Your task to perform on an android device: move an email to a new category in the gmail app Image 0: 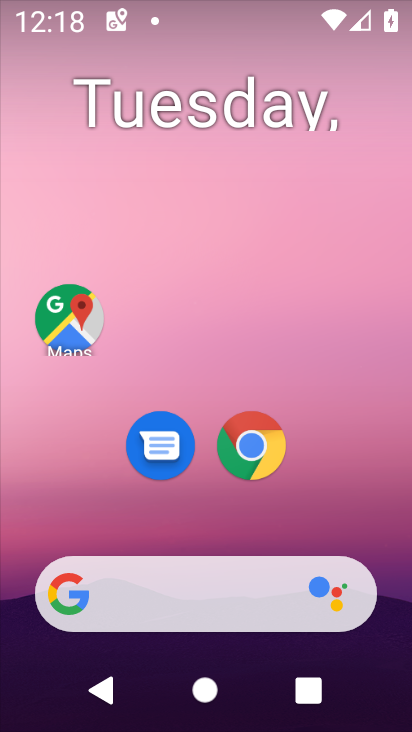
Step 0: drag from (390, 546) to (393, 203)
Your task to perform on an android device: move an email to a new category in the gmail app Image 1: 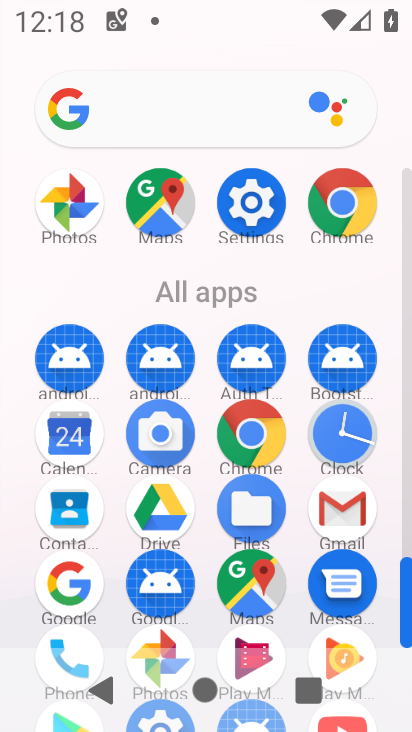
Step 1: drag from (392, 535) to (392, 315)
Your task to perform on an android device: move an email to a new category in the gmail app Image 2: 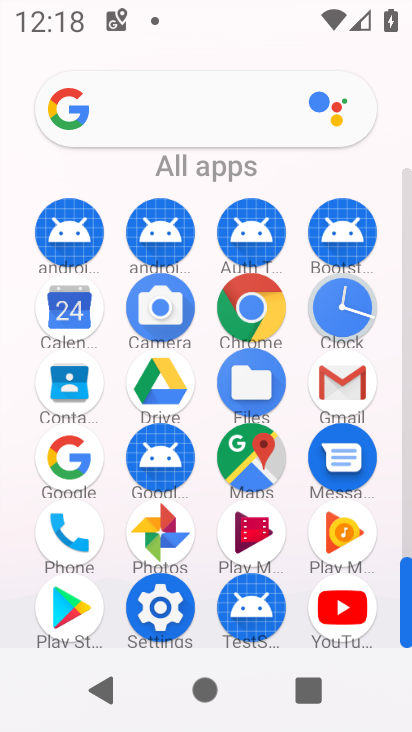
Step 2: click (348, 393)
Your task to perform on an android device: move an email to a new category in the gmail app Image 3: 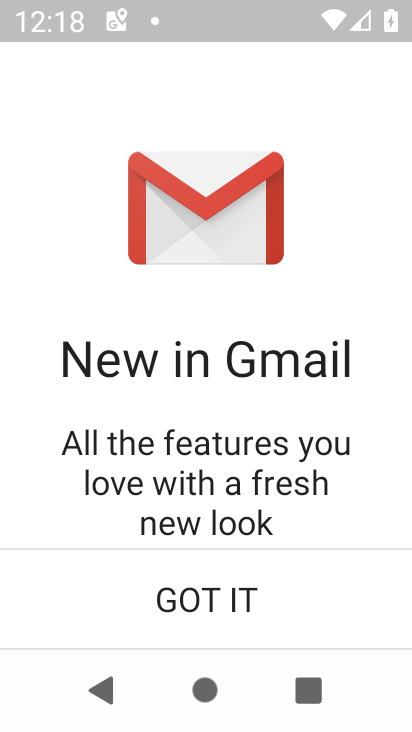
Step 3: click (307, 601)
Your task to perform on an android device: move an email to a new category in the gmail app Image 4: 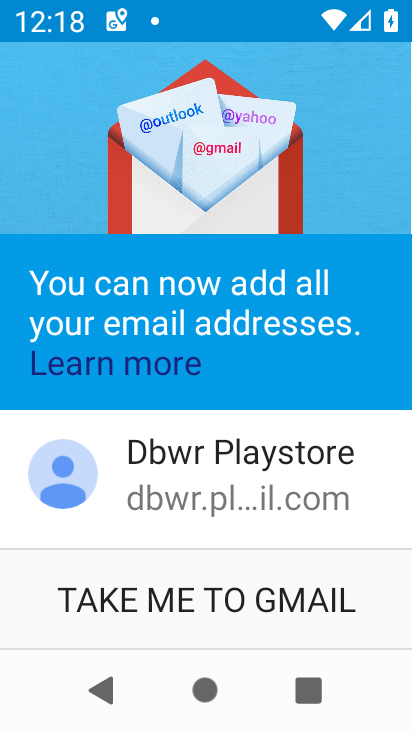
Step 4: click (307, 601)
Your task to perform on an android device: move an email to a new category in the gmail app Image 5: 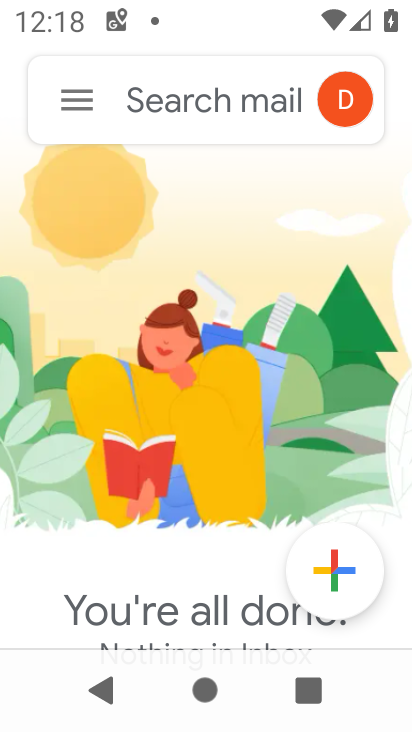
Step 5: task complete